Your task to perform on an android device: find which apps use the phone's location Image 0: 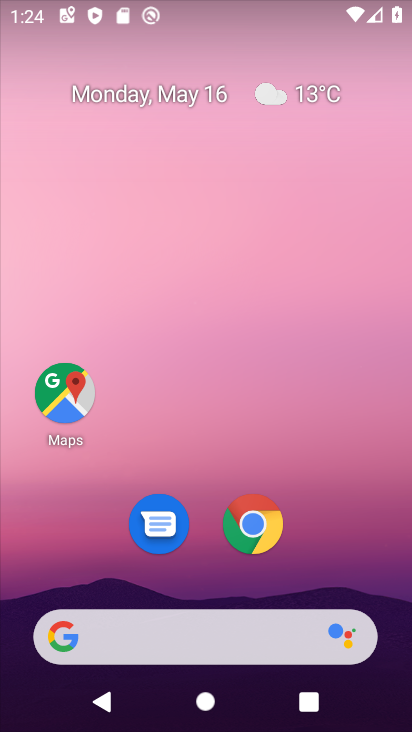
Step 0: drag from (342, 513) to (258, 30)
Your task to perform on an android device: find which apps use the phone's location Image 1: 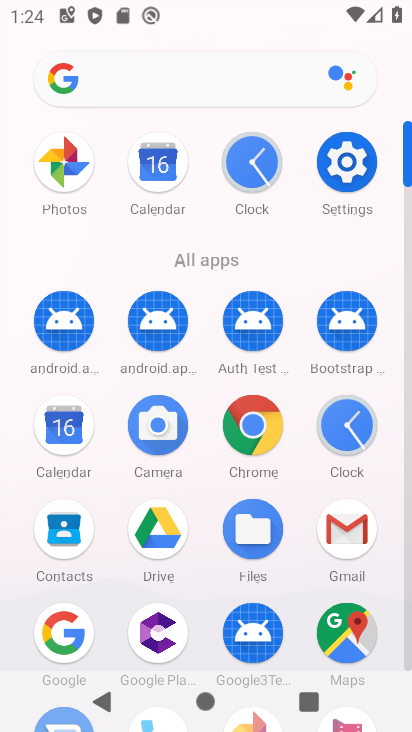
Step 1: click (359, 166)
Your task to perform on an android device: find which apps use the phone's location Image 2: 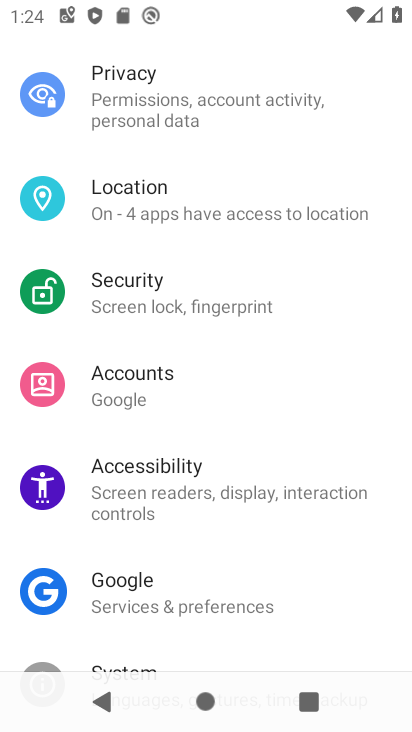
Step 2: click (204, 185)
Your task to perform on an android device: find which apps use the phone's location Image 3: 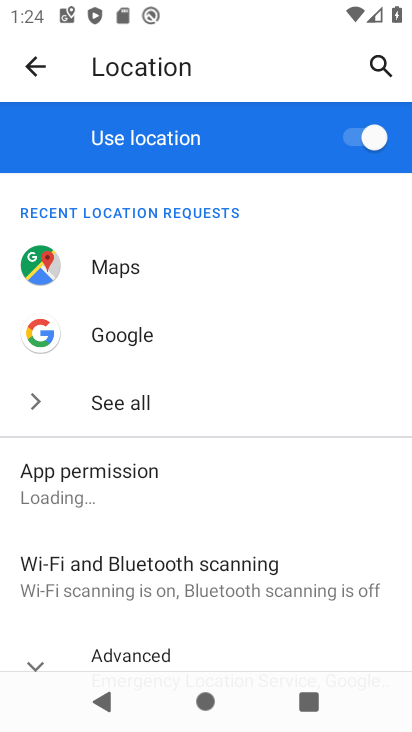
Step 3: click (127, 481)
Your task to perform on an android device: find which apps use the phone's location Image 4: 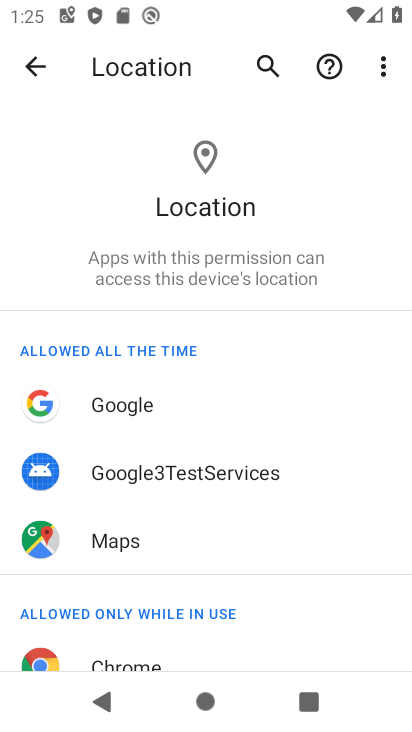
Step 4: task complete